Your task to perform on an android device: Open Google Chrome and click the shortcut for Amazon.com Image 0: 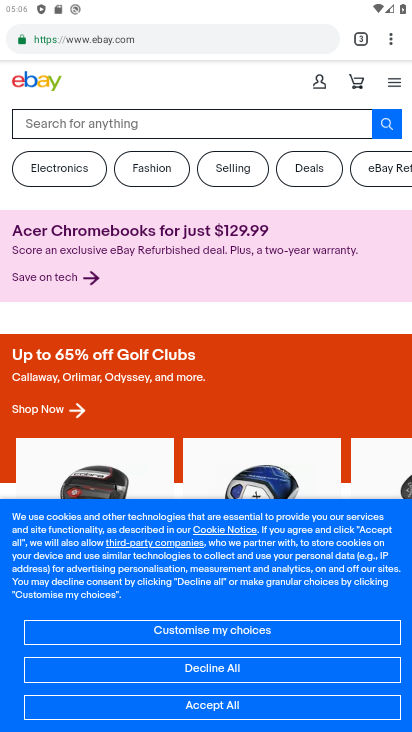
Step 0: click (363, 38)
Your task to perform on an android device: Open Google Chrome and click the shortcut for Amazon.com Image 1: 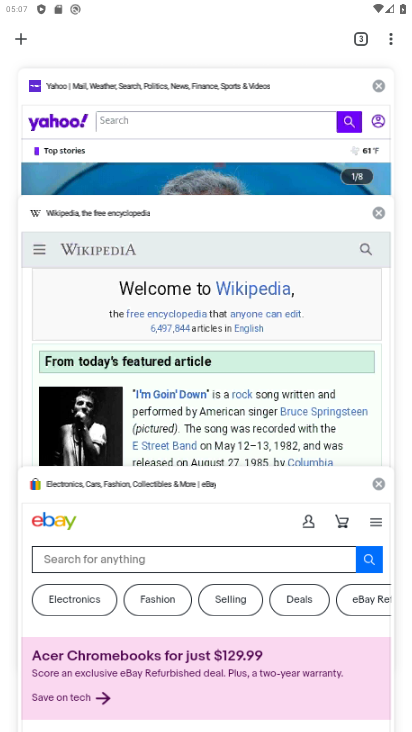
Step 1: click (17, 43)
Your task to perform on an android device: Open Google Chrome and click the shortcut for Amazon.com Image 2: 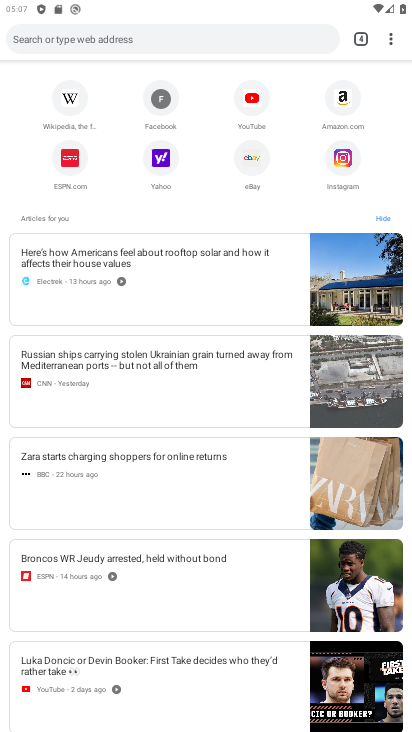
Step 2: click (339, 93)
Your task to perform on an android device: Open Google Chrome and click the shortcut for Amazon.com Image 3: 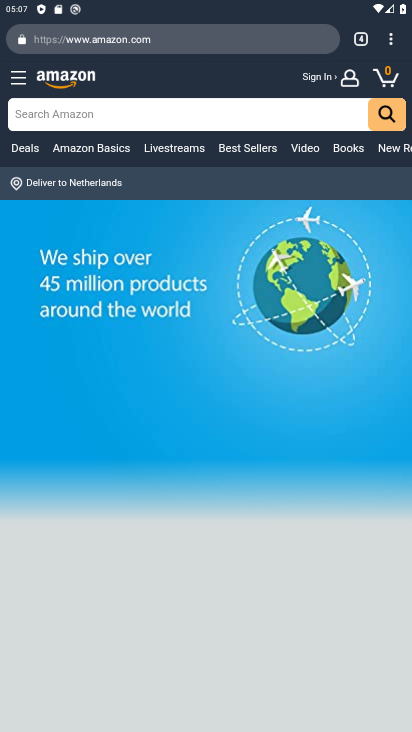
Step 3: task complete